Your task to perform on an android device: Do I have any events tomorrow? Image 0: 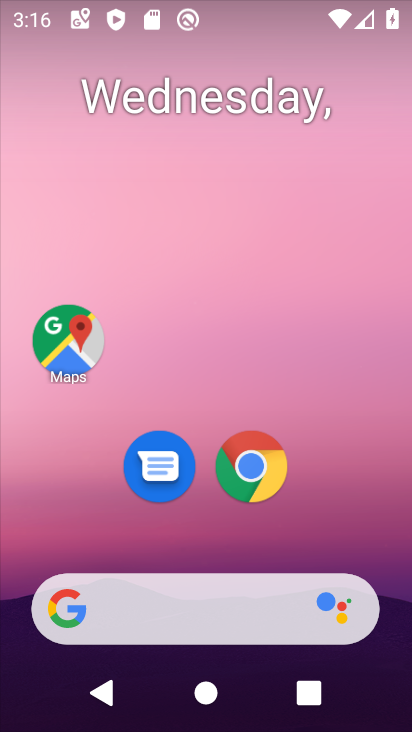
Step 0: drag from (205, 572) to (189, 12)
Your task to perform on an android device: Do I have any events tomorrow? Image 1: 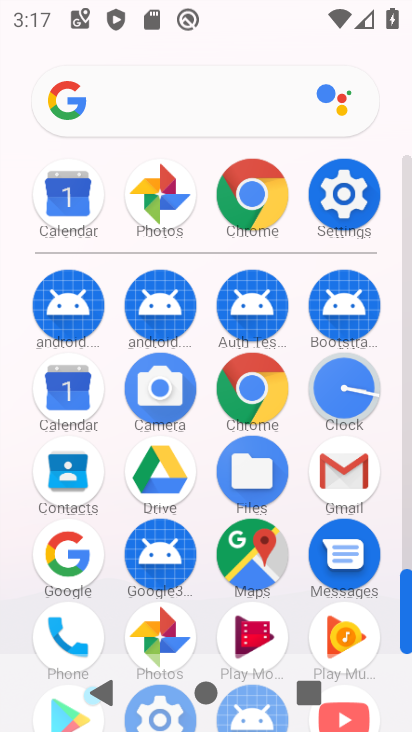
Step 1: click (54, 409)
Your task to perform on an android device: Do I have any events tomorrow? Image 2: 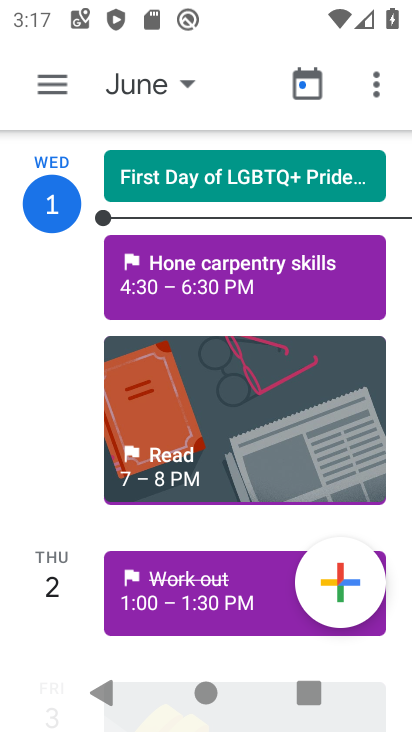
Step 2: click (42, 580)
Your task to perform on an android device: Do I have any events tomorrow? Image 3: 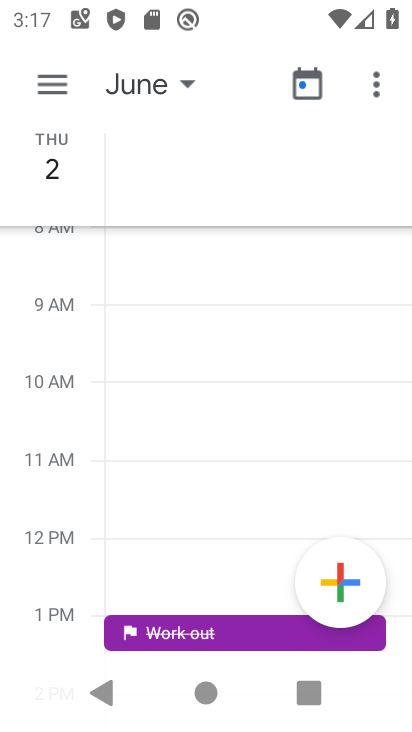
Step 3: task complete